Your task to perform on an android device: check out phone information Image 0: 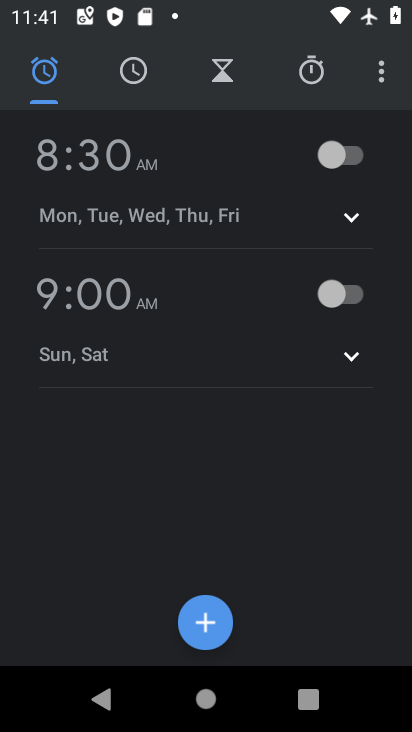
Step 0: press home button
Your task to perform on an android device: check out phone information Image 1: 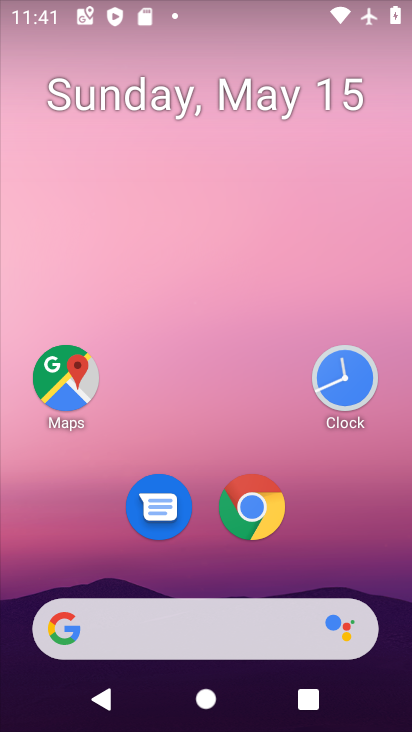
Step 1: drag from (265, 553) to (342, 77)
Your task to perform on an android device: check out phone information Image 2: 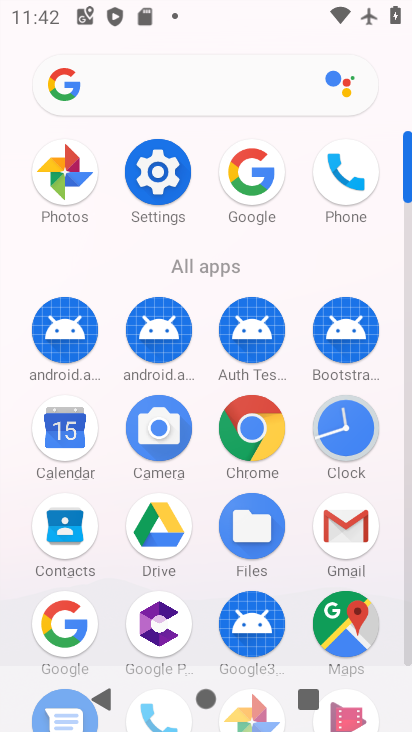
Step 2: drag from (204, 606) to (236, 369)
Your task to perform on an android device: check out phone information Image 3: 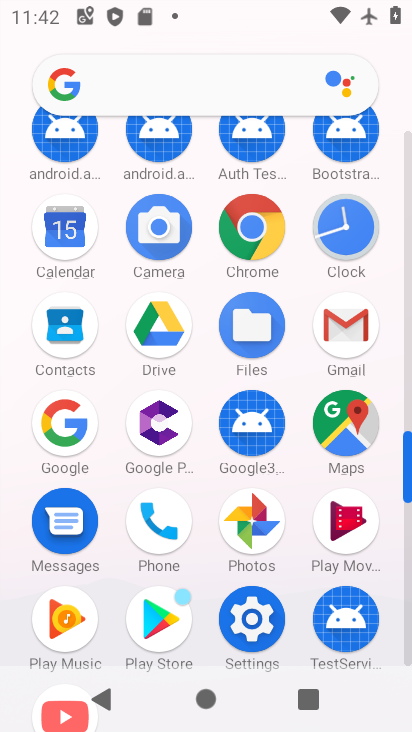
Step 3: click (172, 536)
Your task to perform on an android device: check out phone information Image 4: 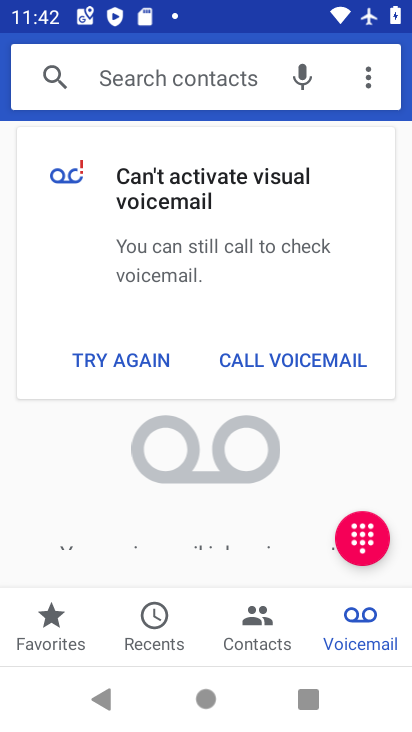
Step 4: click (370, 82)
Your task to perform on an android device: check out phone information Image 5: 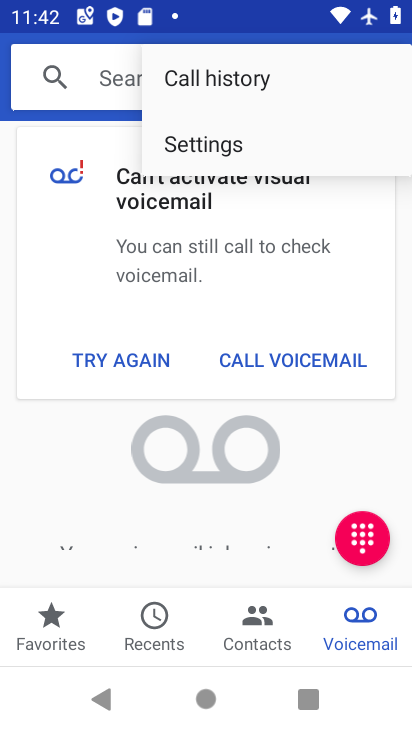
Step 5: click (266, 156)
Your task to perform on an android device: check out phone information Image 6: 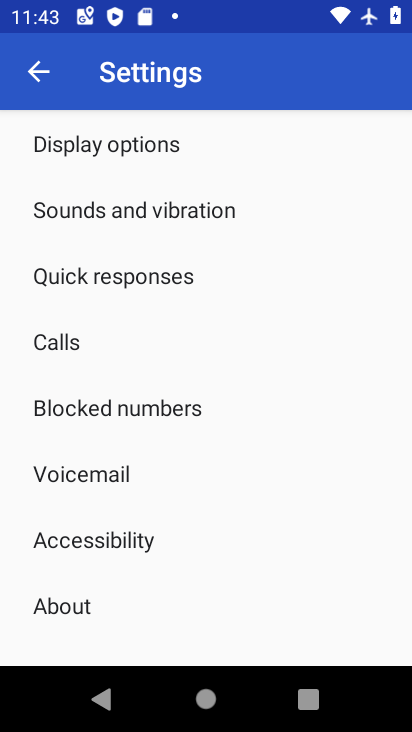
Step 6: drag from (259, 665) to (272, 303)
Your task to perform on an android device: check out phone information Image 7: 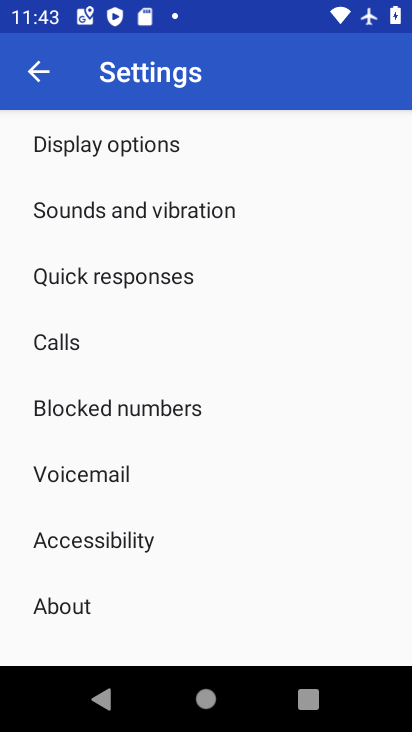
Step 7: click (66, 605)
Your task to perform on an android device: check out phone information Image 8: 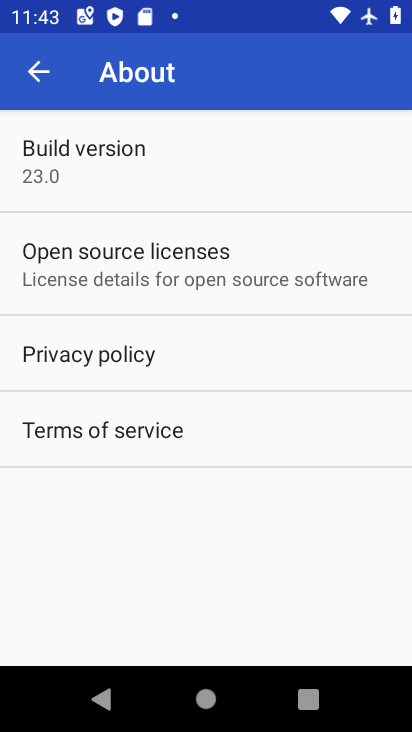
Step 8: task complete